Your task to perform on an android device: allow cookies in the chrome app Image 0: 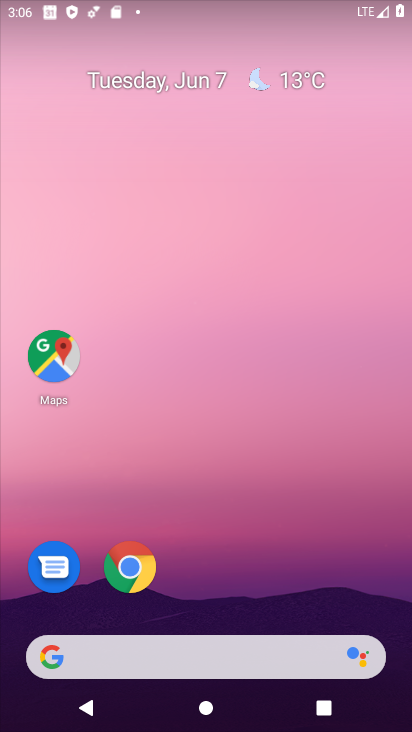
Step 0: click (134, 579)
Your task to perform on an android device: allow cookies in the chrome app Image 1: 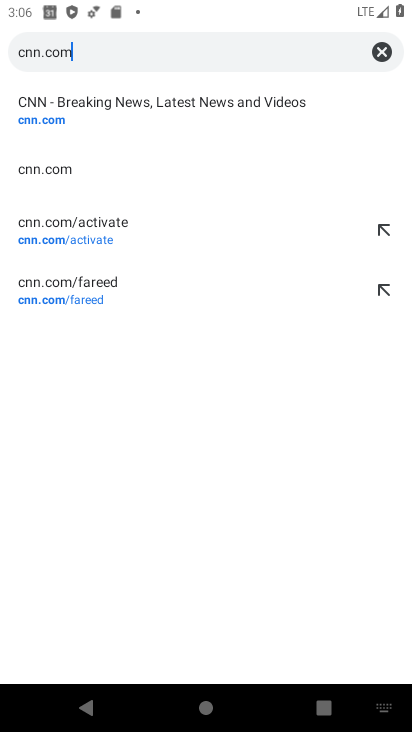
Step 1: click (374, 53)
Your task to perform on an android device: allow cookies in the chrome app Image 2: 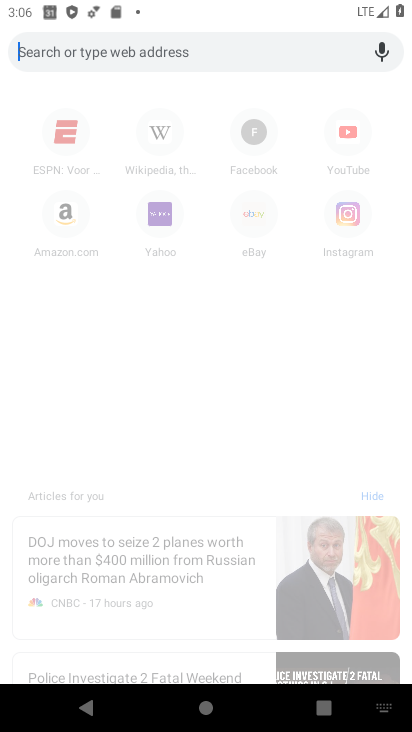
Step 2: press back button
Your task to perform on an android device: allow cookies in the chrome app Image 3: 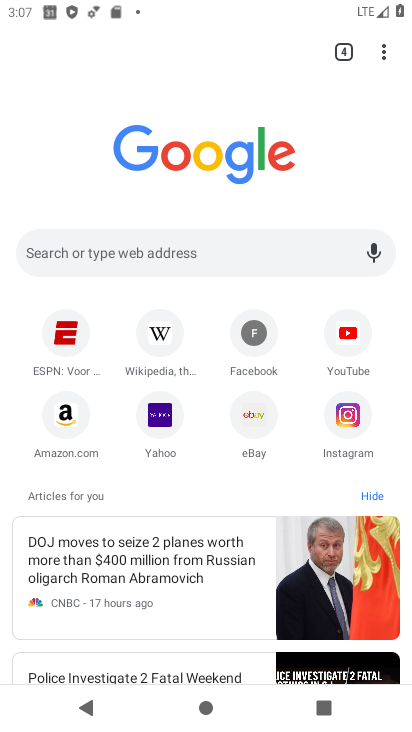
Step 3: drag from (382, 52) to (208, 435)
Your task to perform on an android device: allow cookies in the chrome app Image 4: 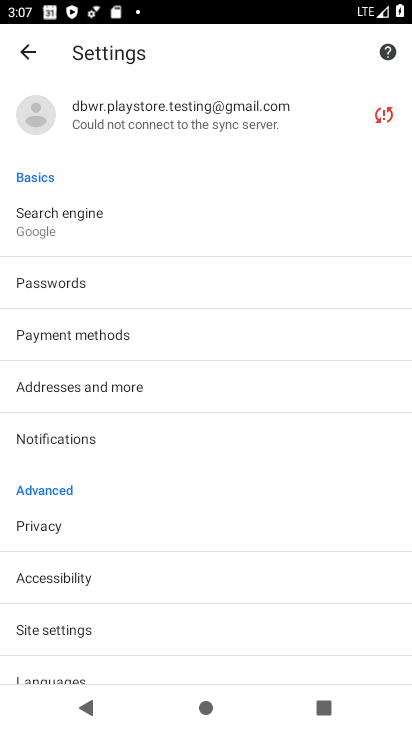
Step 4: click (59, 627)
Your task to perform on an android device: allow cookies in the chrome app Image 5: 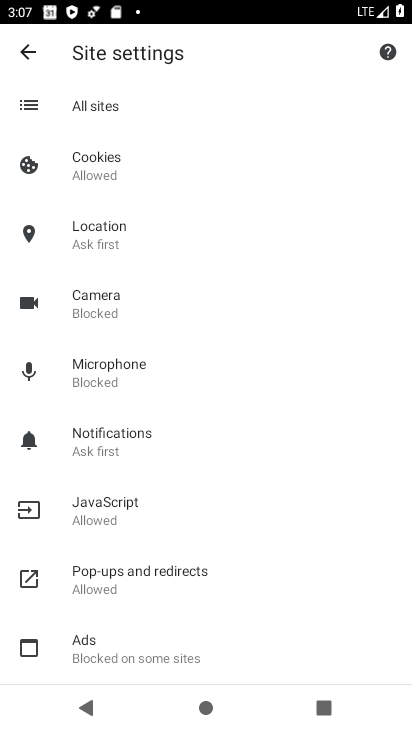
Step 5: click (96, 175)
Your task to perform on an android device: allow cookies in the chrome app Image 6: 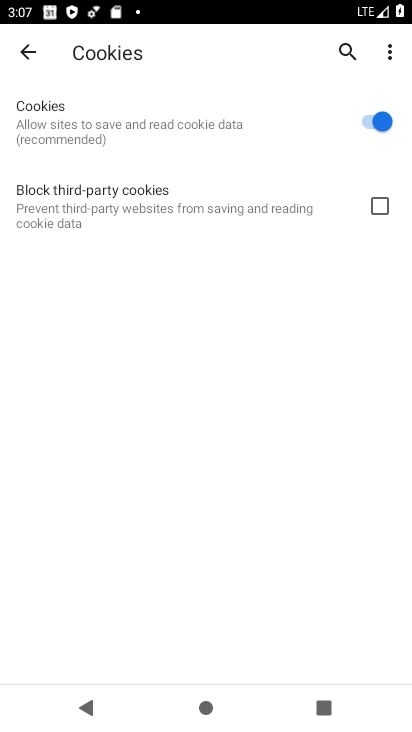
Step 6: task complete